Your task to perform on an android device: change notifications settings Image 0: 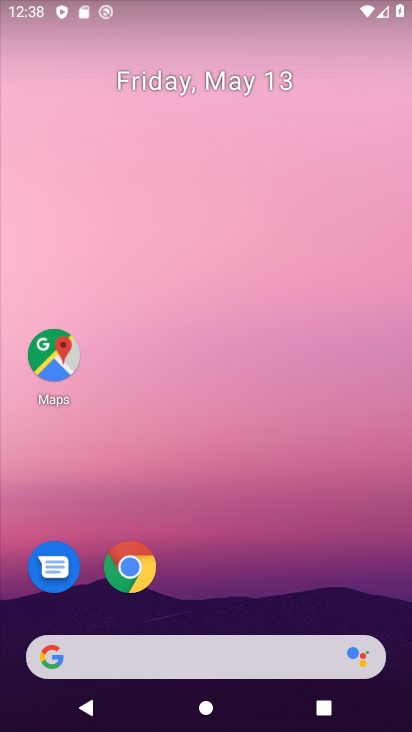
Step 0: drag from (263, 592) to (402, 172)
Your task to perform on an android device: change notifications settings Image 1: 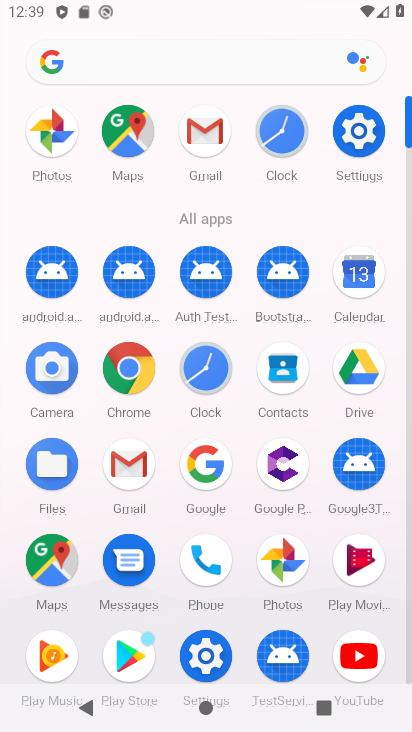
Step 1: click (359, 159)
Your task to perform on an android device: change notifications settings Image 2: 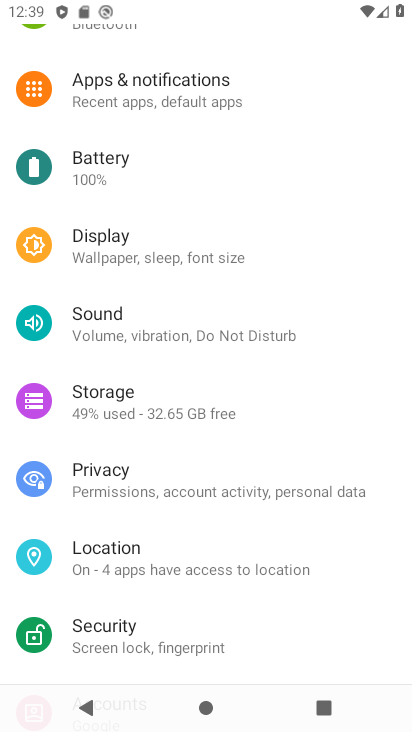
Step 2: click (183, 122)
Your task to perform on an android device: change notifications settings Image 3: 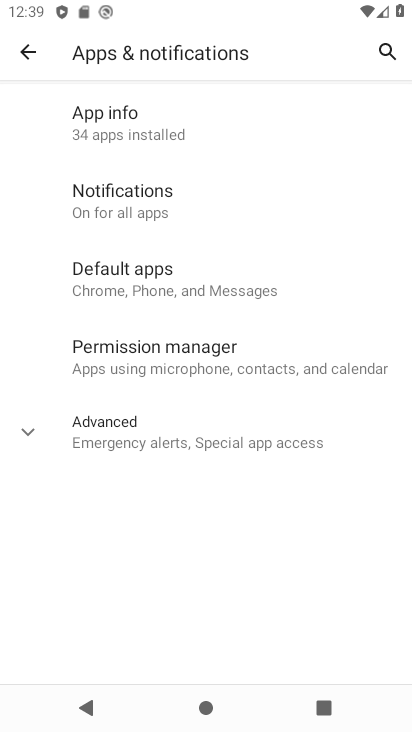
Step 3: click (160, 140)
Your task to perform on an android device: change notifications settings Image 4: 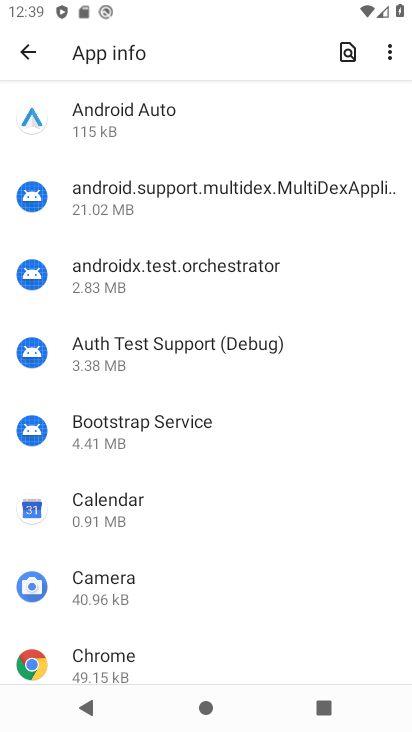
Step 4: task complete